Your task to perform on an android device: delete a single message in the gmail app Image 0: 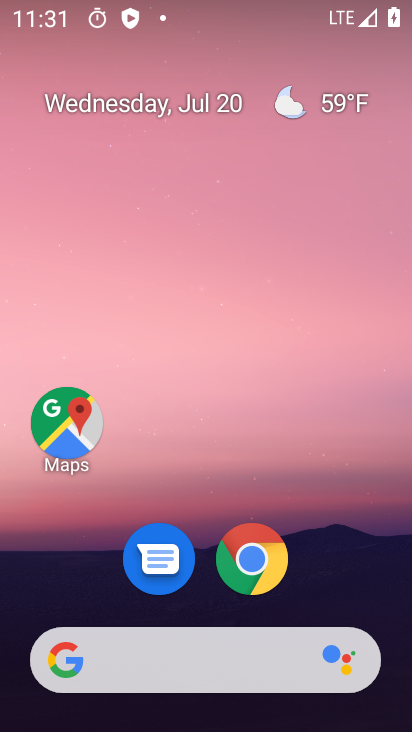
Step 0: drag from (97, 545) to (135, 15)
Your task to perform on an android device: delete a single message in the gmail app Image 1: 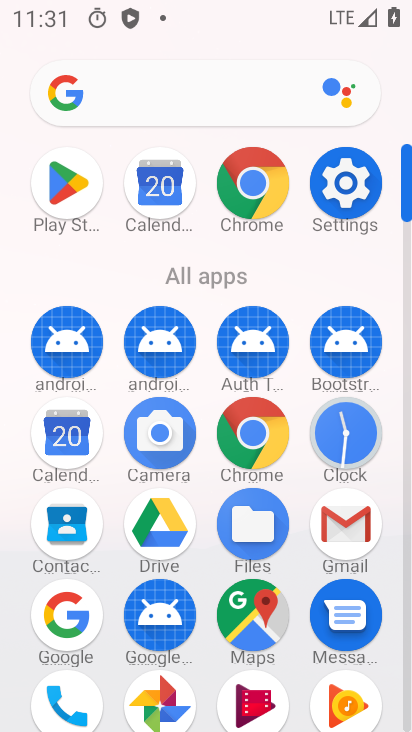
Step 1: click (344, 525)
Your task to perform on an android device: delete a single message in the gmail app Image 2: 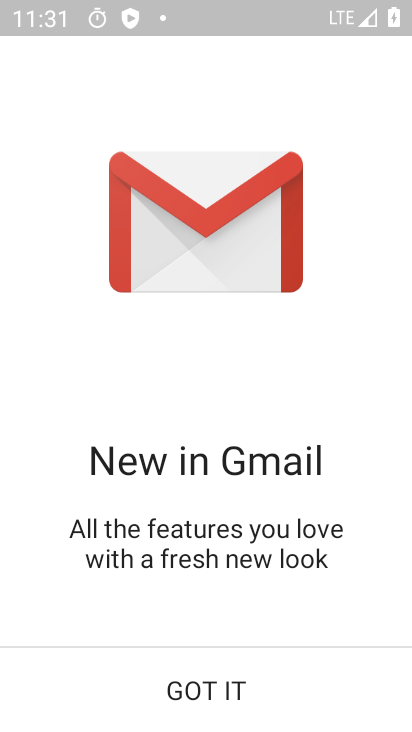
Step 2: click (203, 690)
Your task to perform on an android device: delete a single message in the gmail app Image 3: 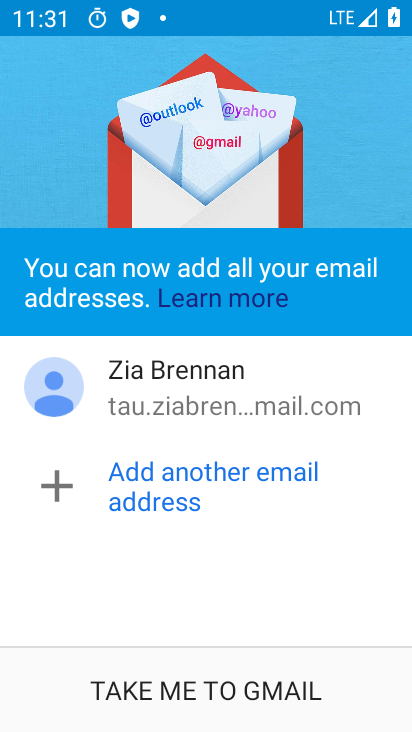
Step 3: click (184, 687)
Your task to perform on an android device: delete a single message in the gmail app Image 4: 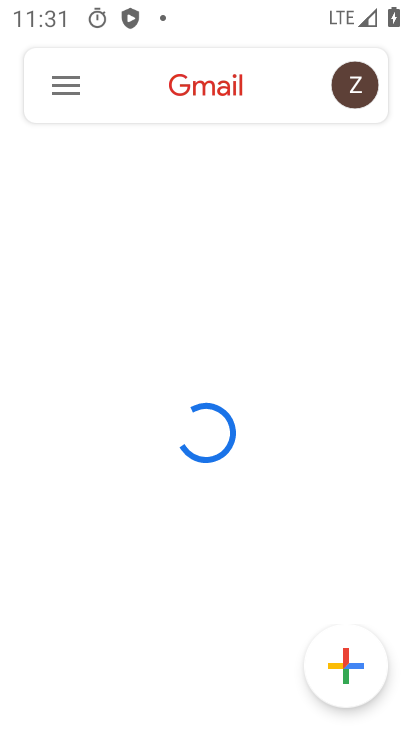
Step 4: click (58, 86)
Your task to perform on an android device: delete a single message in the gmail app Image 5: 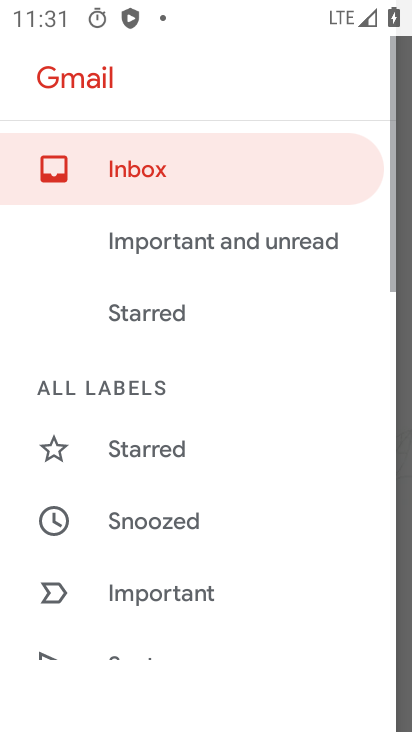
Step 5: drag from (125, 616) to (214, 206)
Your task to perform on an android device: delete a single message in the gmail app Image 6: 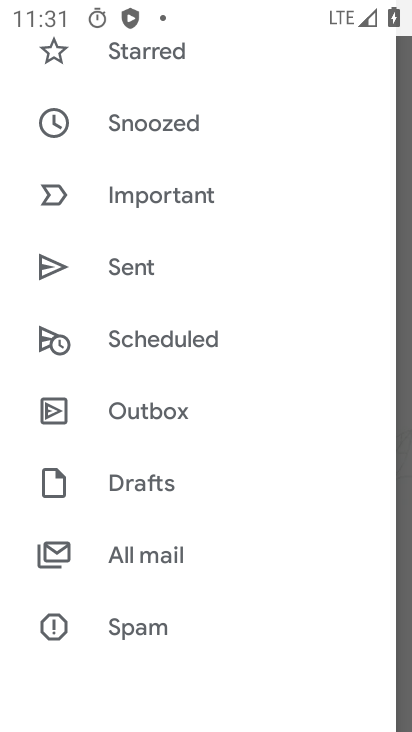
Step 6: click (140, 531)
Your task to perform on an android device: delete a single message in the gmail app Image 7: 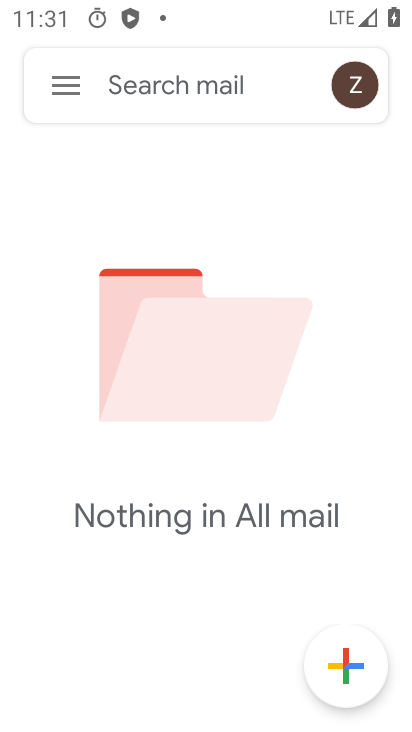
Step 7: task complete